Your task to perform on an android device: Find coffee shops on Maps Image 0: 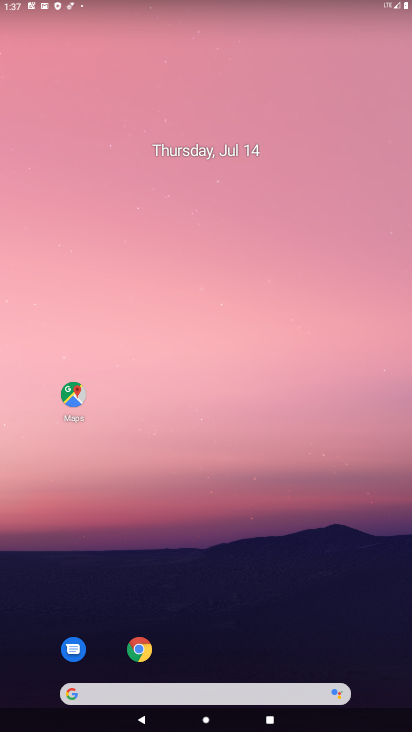
Step 0: drag from (371, 612) to (227, 34)
Your task to perform on an android device: Find coffee shops on Maps Image 1: 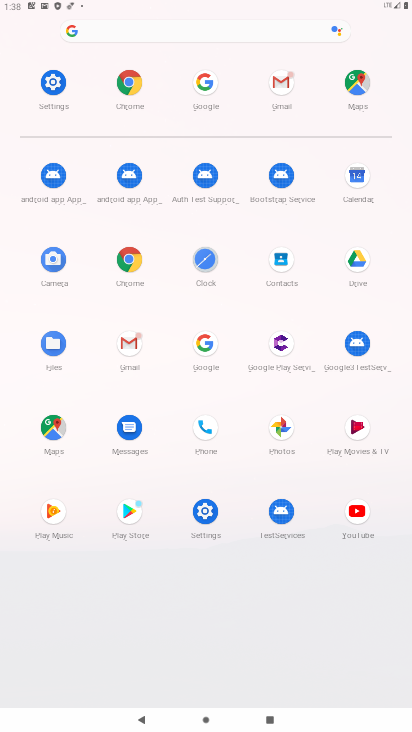
Step 1: click (55, 436)
Your task to perform on an android device: Find coffee shops on Maps Image 2: 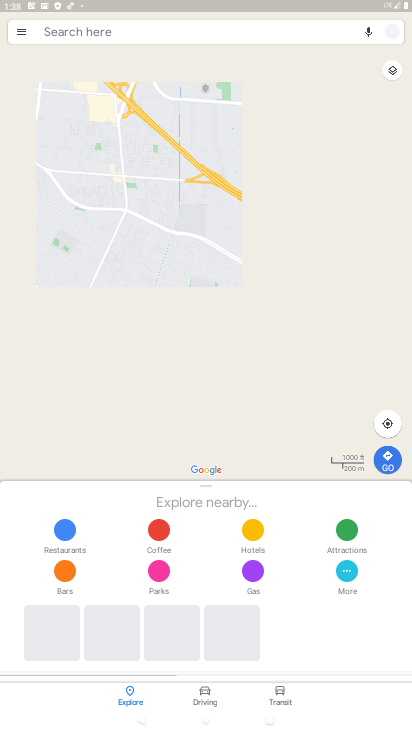
Step 2: click (129, 30)
Your task to perform on an android device: Find coffee shops on Maps Image 3: 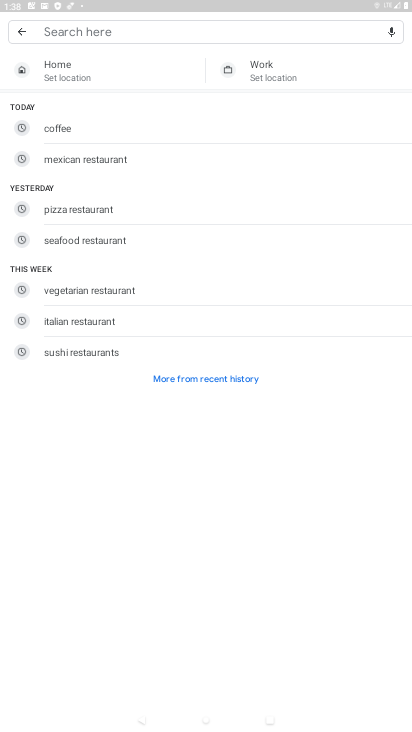
Step 3: click (55, 127)
Your task to perform on an android device: Find coffee shops on Maps Image 4: 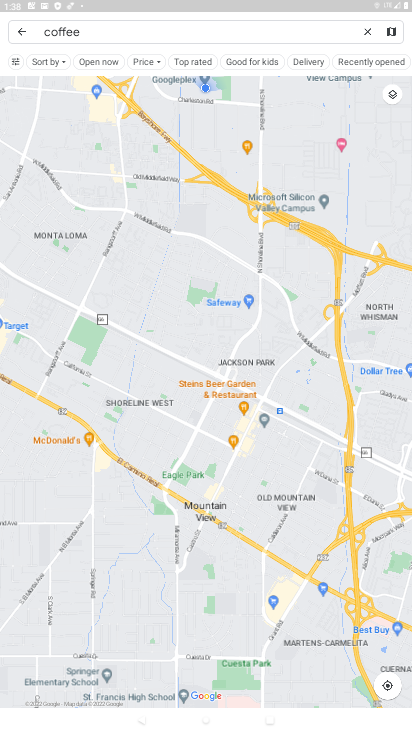
Step 4: task complete